Your task to perform on an android device: Turn off the flashlight Image 0: 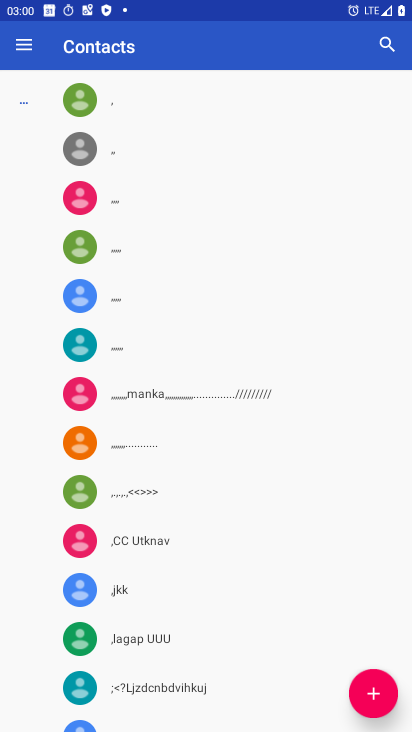
Step 0: drag from (231, 4) to (254, 438)
Your task to perform on an android device: Turn off the flashlight Image 1: 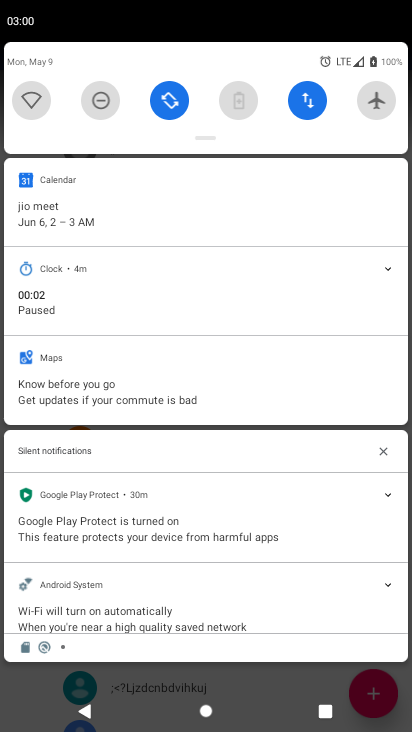
Step 1: task complete